Your task to perform on an android device: move an email to a new category in the gmail app Image 0: 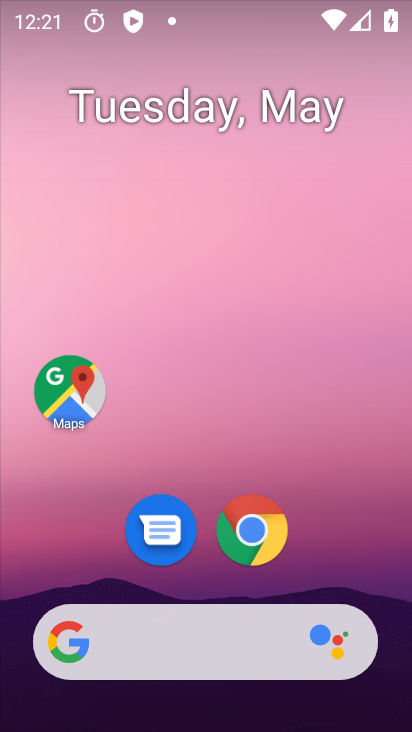
Step 0: drag from (350, 573) to (209, 21)
Your task to perform on an android device: move an email to a new category in the gmail app Image 1: 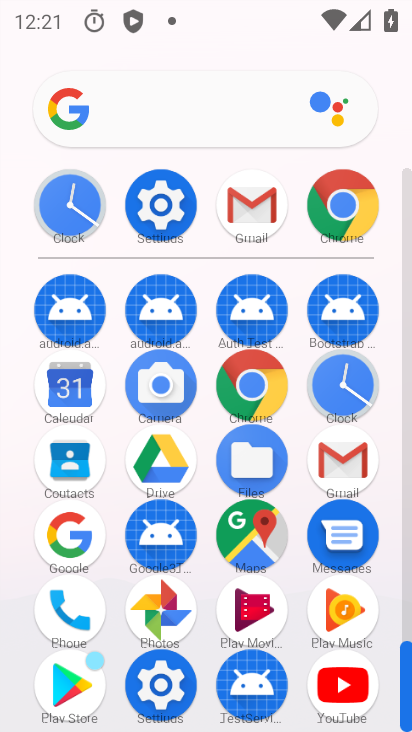
Step 1: drag from (8, 571) to (16, 237)
Your task to perform on an android device: move an email to a new category in the gmail app Image 2: 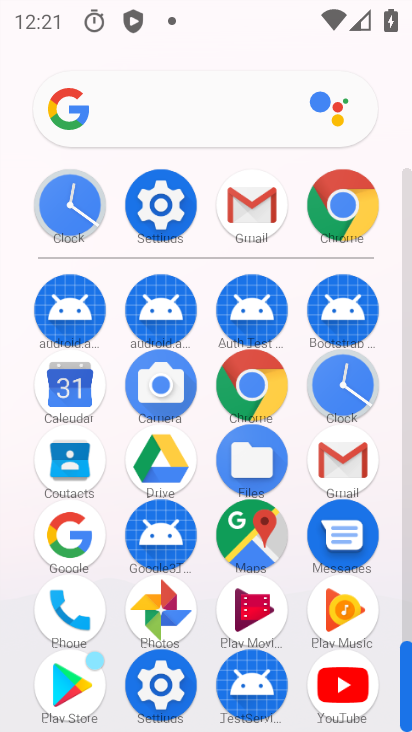
Step 2: click (344, 459)
Your task to perform on an android device: move an email to a new category in the gmail app Image 3: 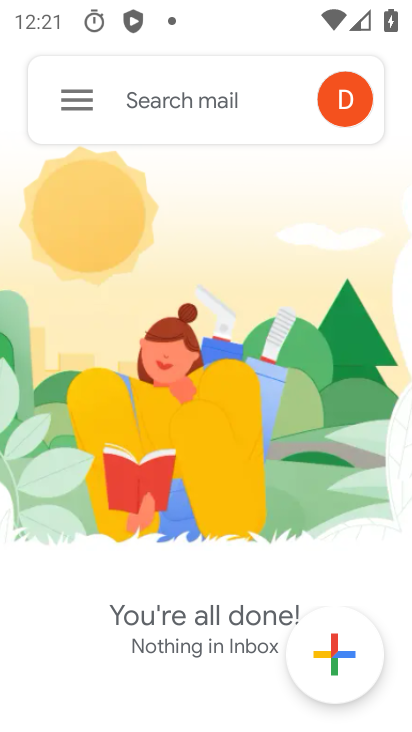
Step 3: click (67, 92)
Your task to perform on an android device: move an email to a new category in the gmail app Image 4: 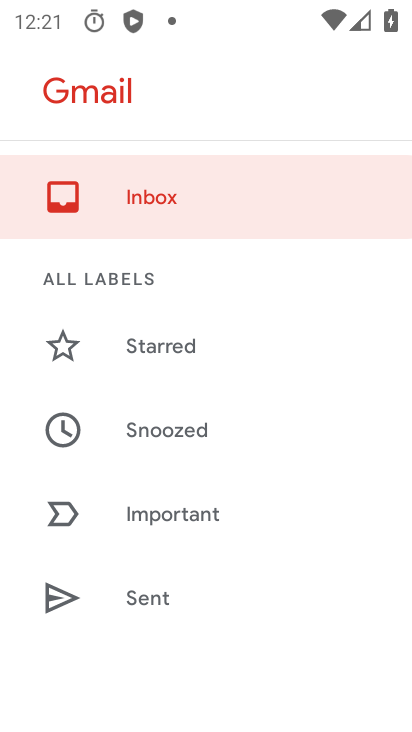
Step 4: drag from (290, 594) to (280, 171)
Your task to perform on an android device: move an email to a new category in the gmail app Image 5: 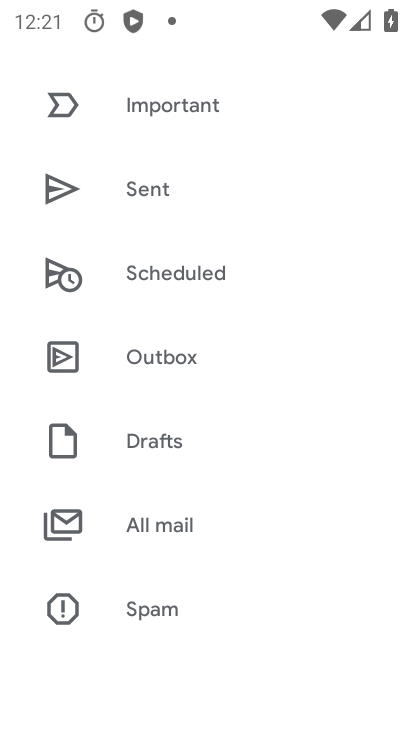
Step 5: drag from (220, 605) to (217, 237)
Your task to perform on an android device: move an email to a new category in the gmail app Image 6: 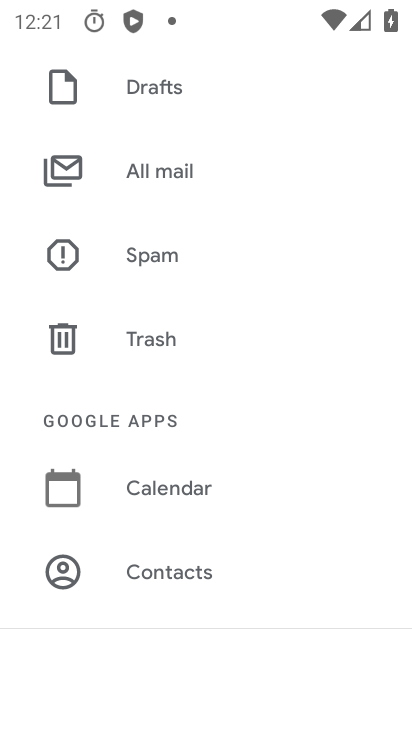
Step 6: click (169, 171)
Your task to perform on an android device: move an email to a new category in the gmail app Image 7: 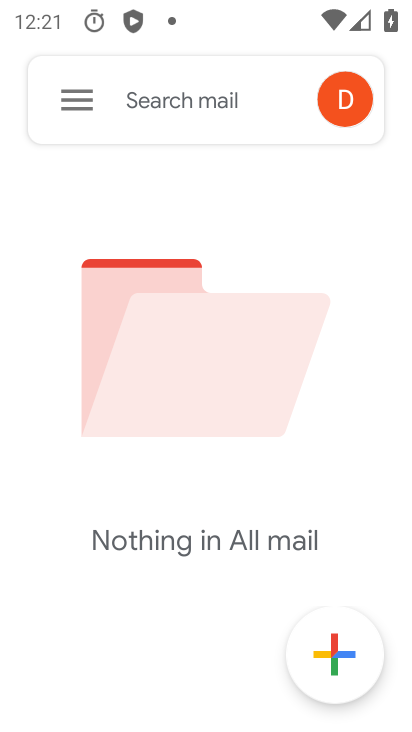
Step 7: click (96, 100)
Your task to perform on an android device: move an email to a new category in the gmail app Image 8: 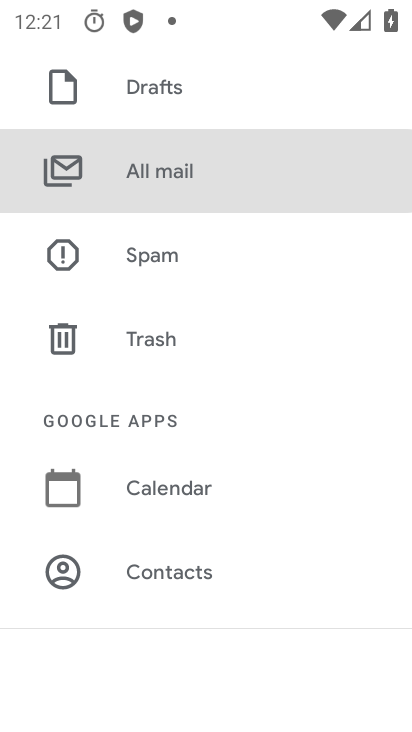
Step 8: click (238, 625)
Your task to perform on an android device: move an email to a new category in the gmail app Image 9: 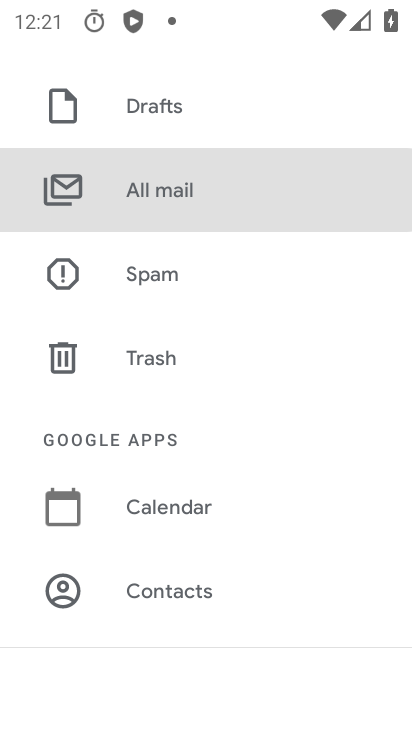
Step 9: drag from (245, 176) to (245, 618)
Your task to perform on an android device: move an email to a new category in the gmail app Image 10: 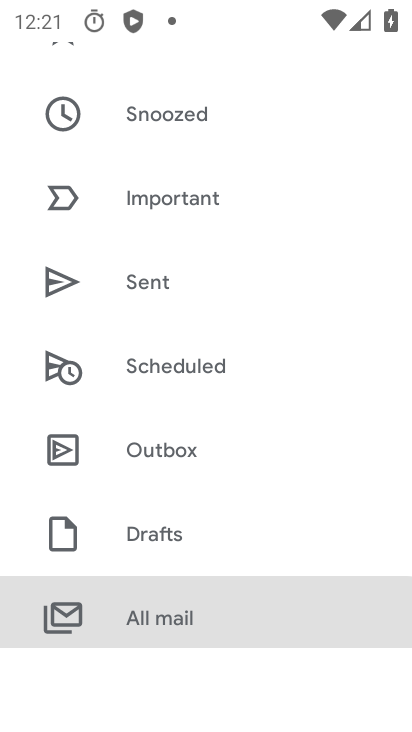
Step 10: drag from (221, 121) to (242, 635)
Your task to perform on an android device: move an email to a new category in the gmail app Image 11: 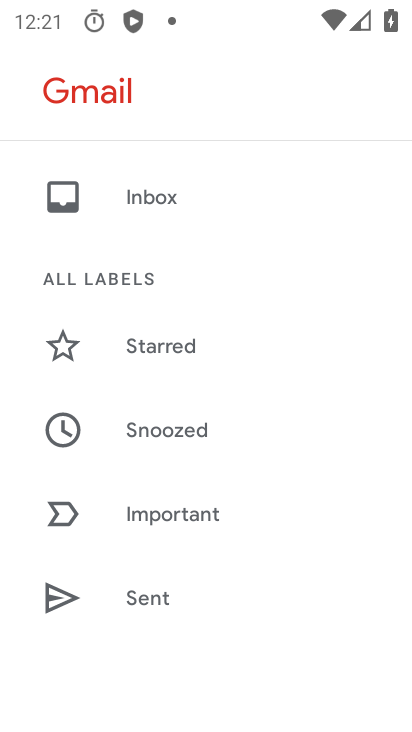
Step 11: click (166, 201)
Your task to perform on an android device: move an email to a new category in the gmail app Image 12: 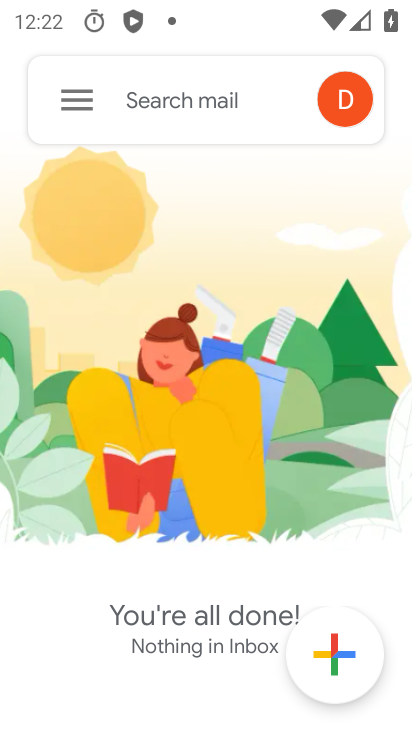
Step 12: click (60, 87)
Your task to perform on an android device: move an email to a new category in the gmail app Image 13: 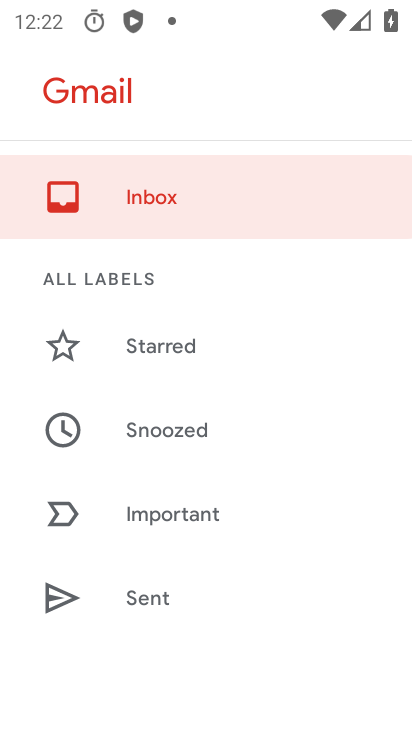
Step 13: drag from (242, 577) to (236, 178)
Your task to perform on an android device: move an email to a new category in the gmail app Image 14: 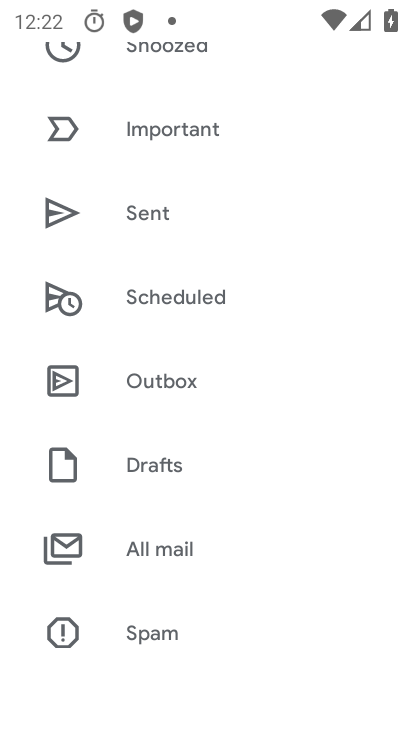
Step 14: click (172, 543)
Your task to perform on an android device: move an email to a new category in the gmail app Image 15: 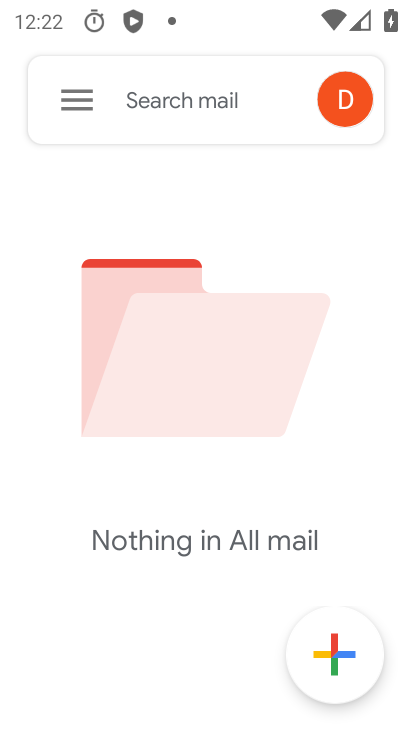
Step 15: task complete